Your task to perform on an android device: check data usage Image 0: 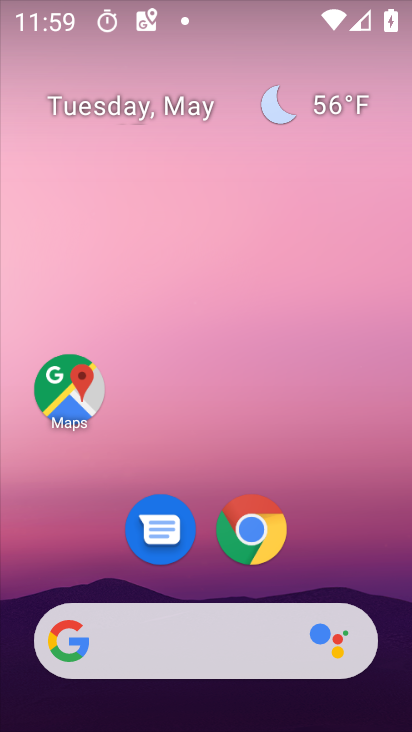
Step 0: drag from (219, 560) to (197, 281)
Your task to perform on an android device: check data usage Image 1: 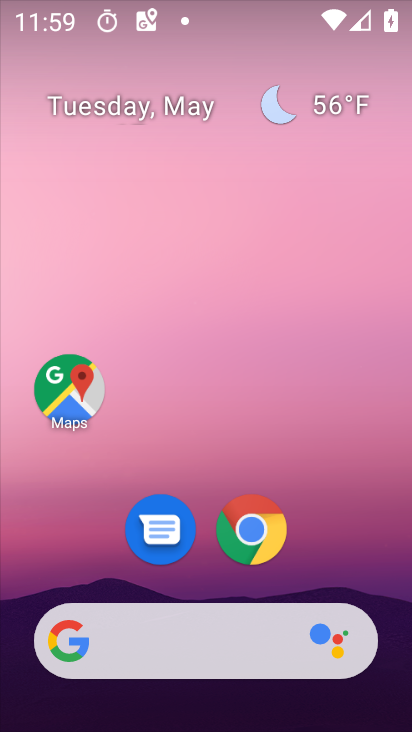
Step 1: drag from (217, 581) to (254, 111)
Your task to perform on an android device: check data usage Image 2: 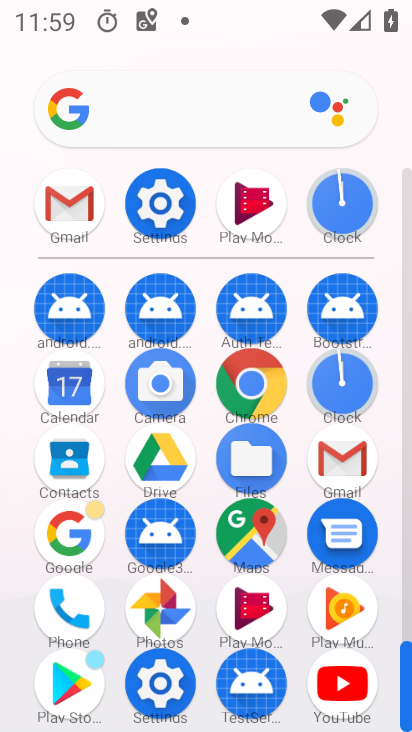
Step 2: click (164, 208)
Your task to perform on an android device: check data usage Image 3: 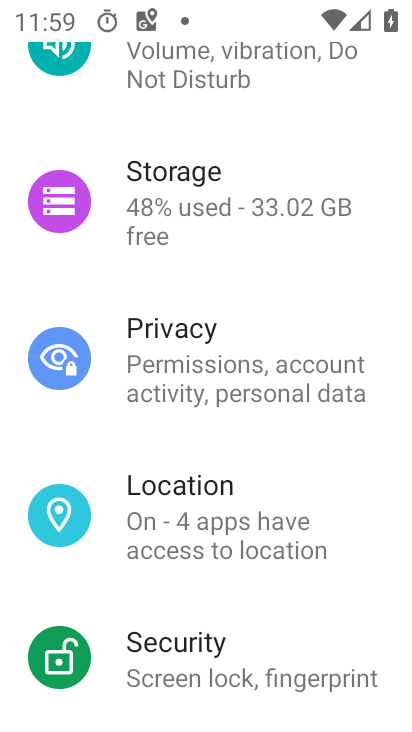
Step 3: drag from (164, 208) to (191, 645)
Your task to perform on an android device: check data usage Image 4: 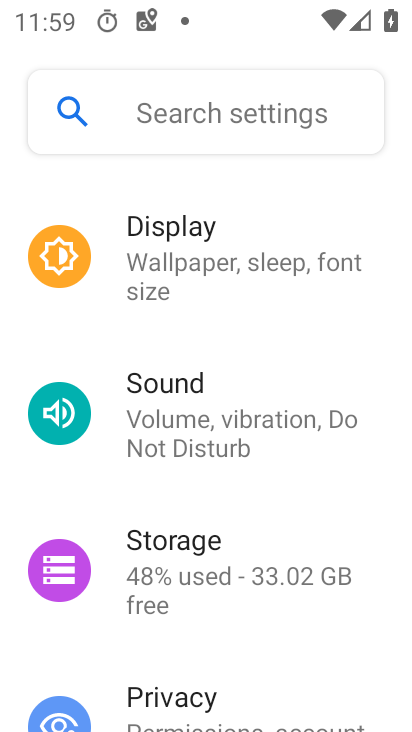
Step 4: drag from (228, 202) to (275, 645)
Your task to perform on an android device: check data usage Image 5: 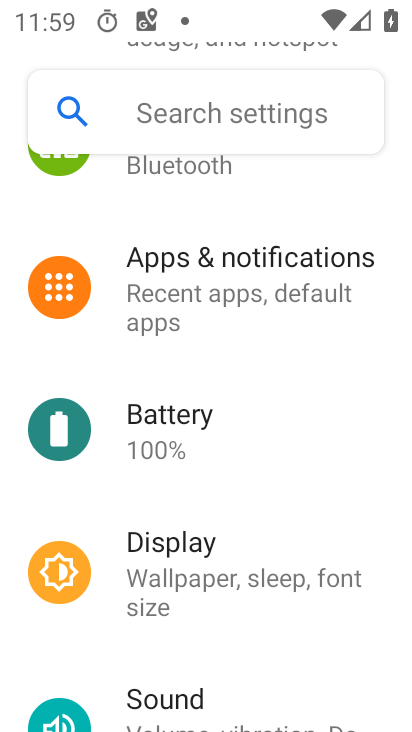
Step 5: drag from (243, 212) to (246, 534)
Your task to perform on an android device: check data usage Image 6: 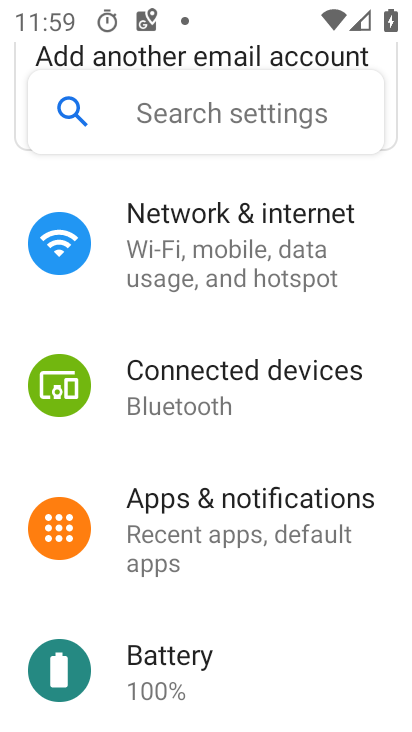
Step 6: click (222, 241)
Your task to perform on an android device: check data usage Image 7: 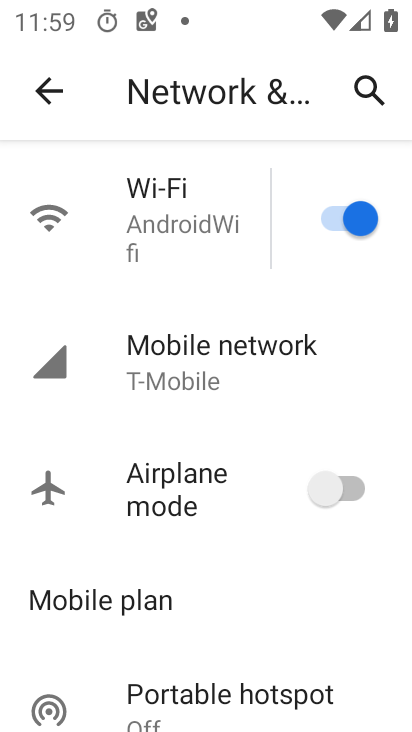
Step 7: click (307, 348)
Your task to perform on an android device: check data usage Image 8: 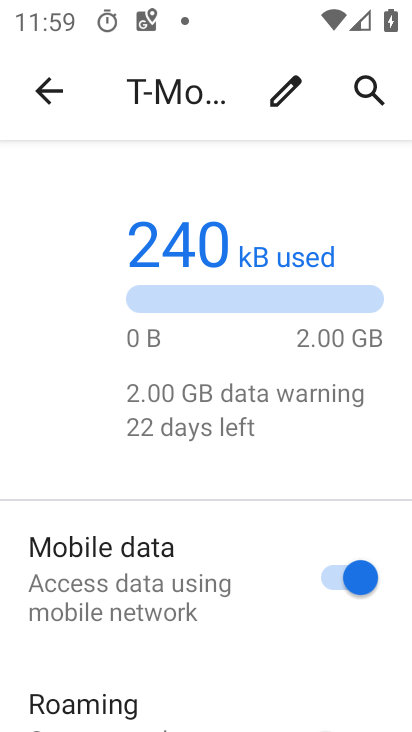
Step 8: task complete